Your task to perform on an android device: change your default location settings in chrome Image 0: 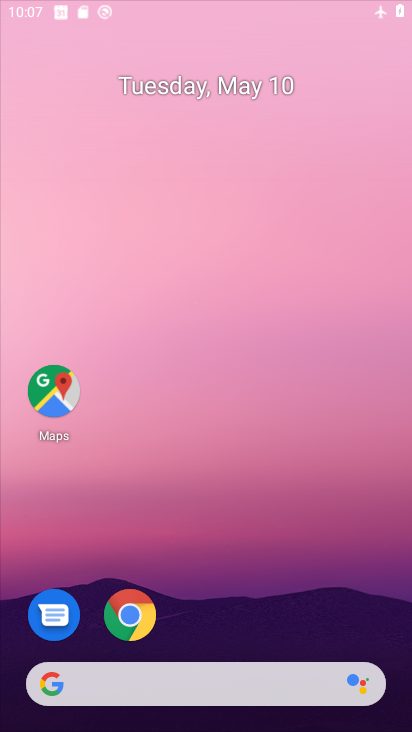
Step 0: drag from (193, 618) to (225, 116)
Your task to perform on an android device: change your default location settings in chrome Image 1: 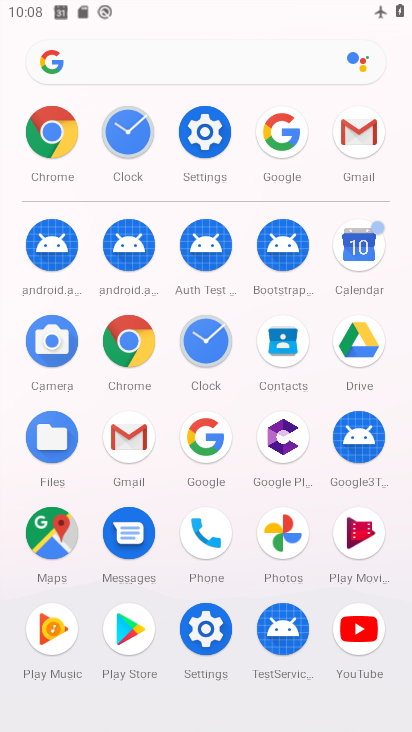
Step 1: click (118, 346)
Your task to perform on an android device: change your default location settings in chrome Image 2: 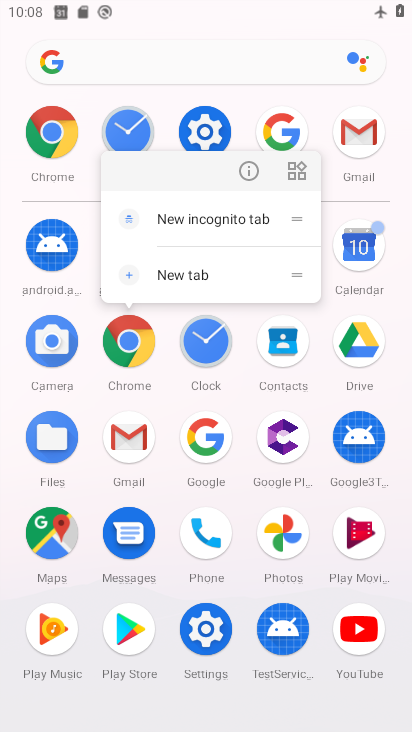
Step 2: click (256, 178)
Your task to perform on an android device: change your default location settings in chrome Image 3: 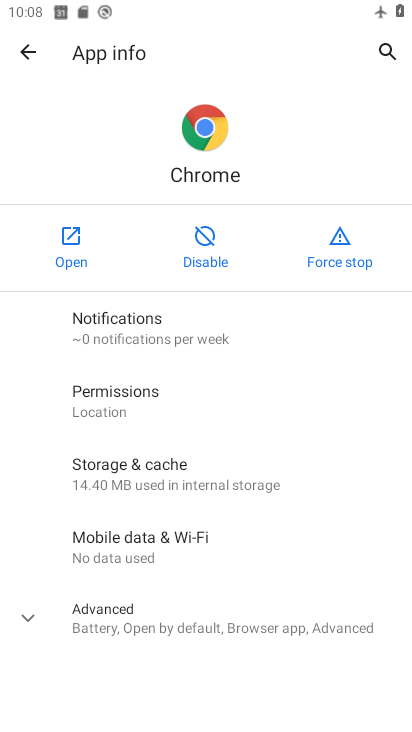
Step 3: click (53, 237)
Your task to perform on an android device: change your default location settings in chrome Image 4: 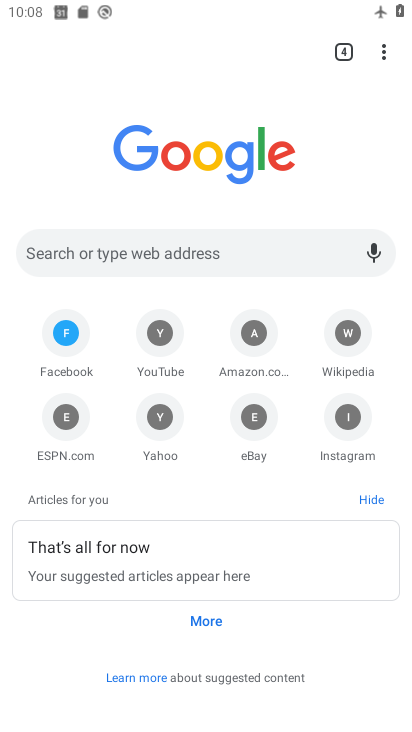
Step 4: drag from (382, 46) to (215, 427)
Your task to perform on an android device: change your default location settings in chrome Image 5: 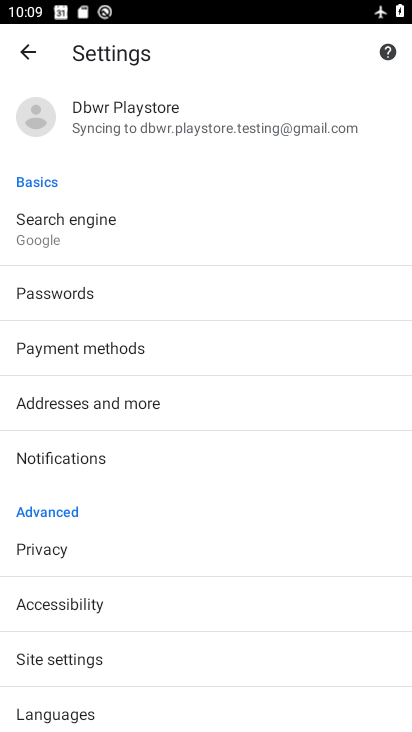
Step 5: drag from (133, 584) to (197, 102)
Your task to perform on an android device: change your default location settings in chrome Image 6: 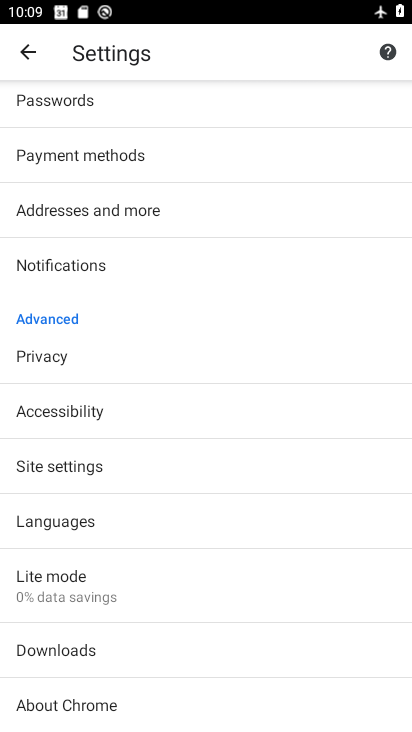
Step 6: click (58, 460)
Your task to perform on an android device: change your default location settings in chrome Image 7: 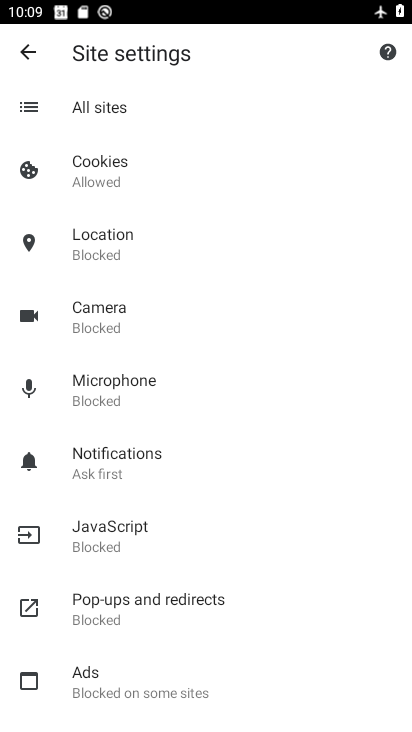
Step 7: drag from (157, 581) to (195, 267)
Your task to perform on an android device: change your default location settings in chrome Image 8: 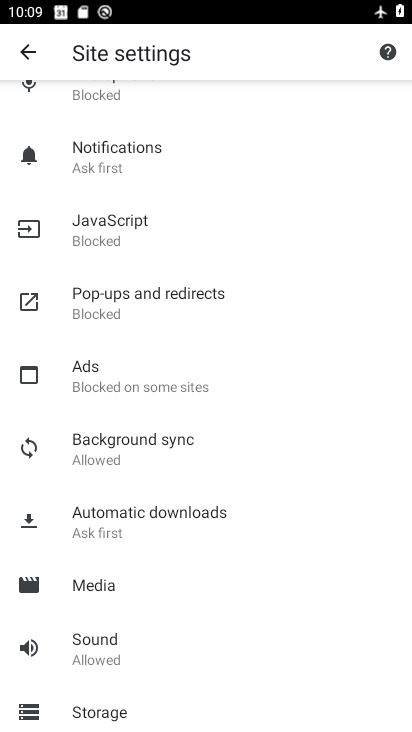
Step 8: drag from (137, 195) to (194, 658)
Your task to perform on an android device: change your default location settings in chrome Image 9: 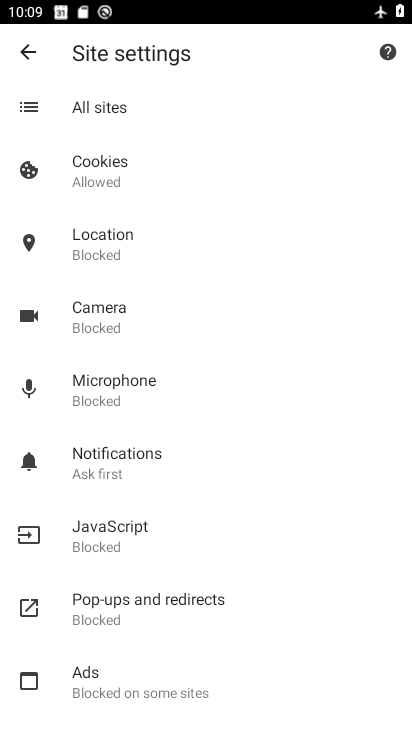
Step 9: click (132, 250)
Your task to perform on an android device: change your default location settings in chrome Image 10: 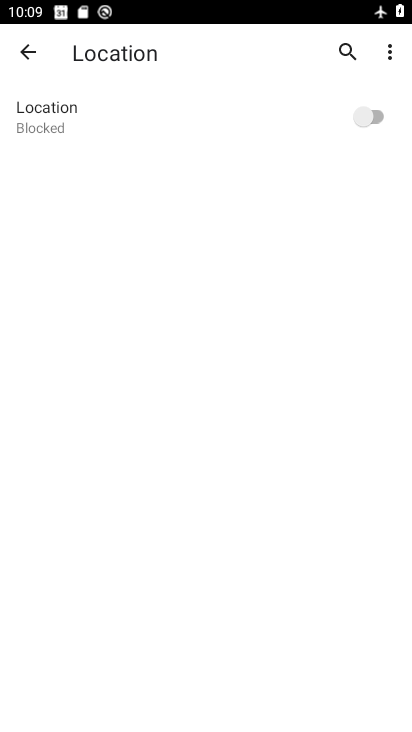
Step 10: drag from (164, 565) to (216, 282)
Your task to perform on an android device: change your default location settings in chrome Image 11: 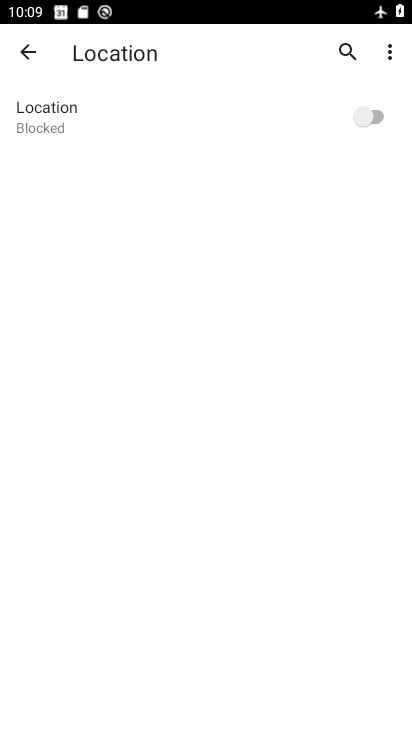
Step 11: click (376, 118)
Your task to perform on an android device: change your default location settings in chrome Image 12: 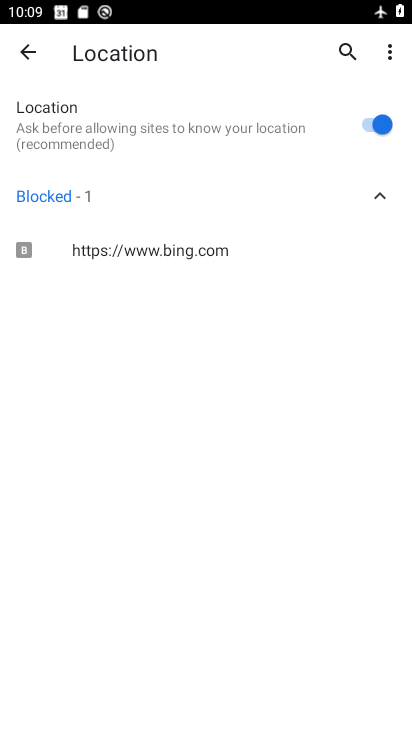
Step 12: task complete